Your task to perform on an android device: Open settings Image 0: 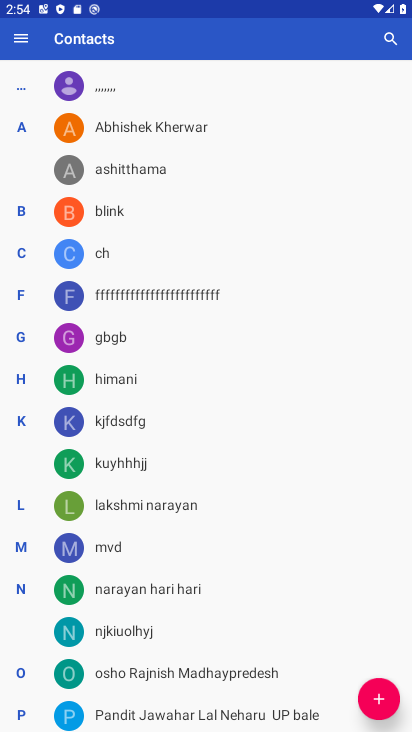
Step 0: press home button
Your task to perform on an android device: Open settings Image 1: 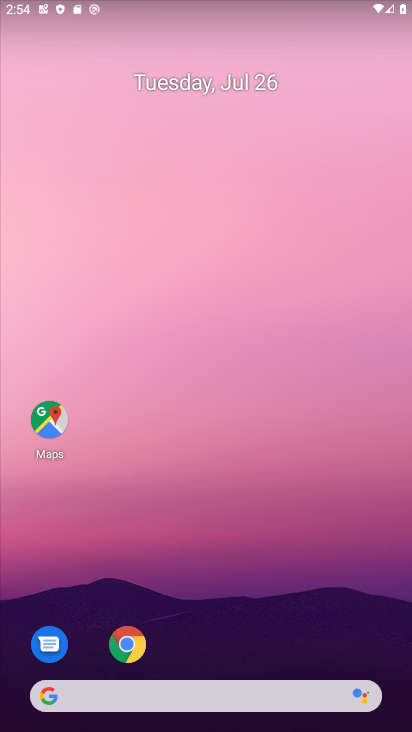
Step 1: drag from (275, 600) to (344, 64)
Your task to perform on an android device: Open settings Image 2: 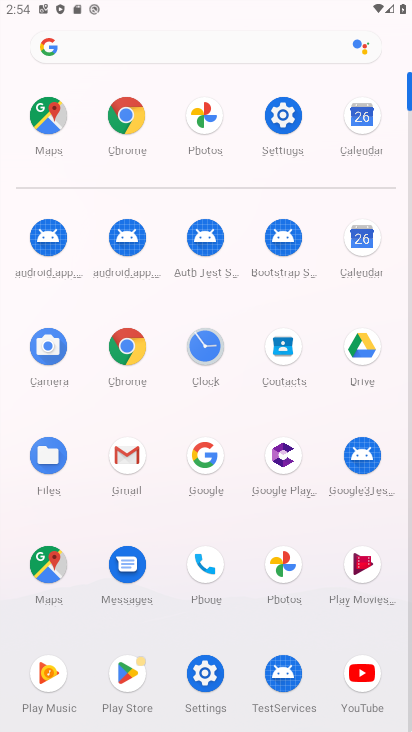
Step 2: click (280, 116)
Your task to perform on an android device: Open settings Image 3: 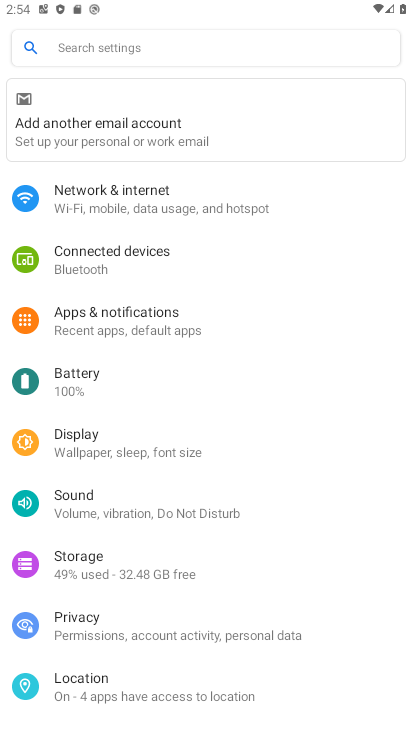
Step 3: press home button
Your task to perform on an android device: Open settings Image 4: 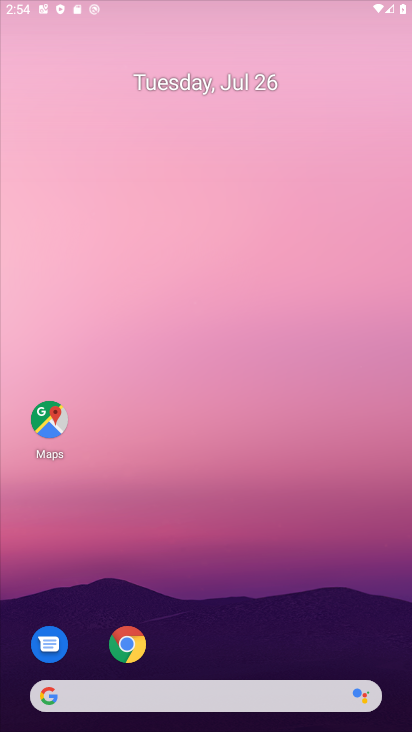
Step 4: drag from (222, 526) to (225, 48)
Your task to perform on an android device: Open settings Image 5: 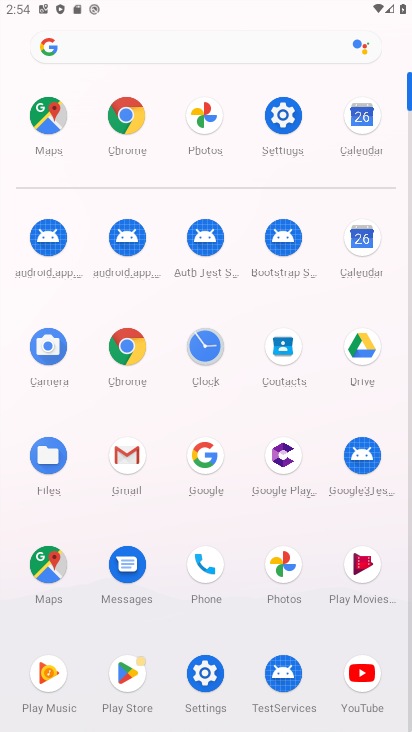
Step 5: click (280, 127)
Your task to perform on an android device: Open settings Image 6: 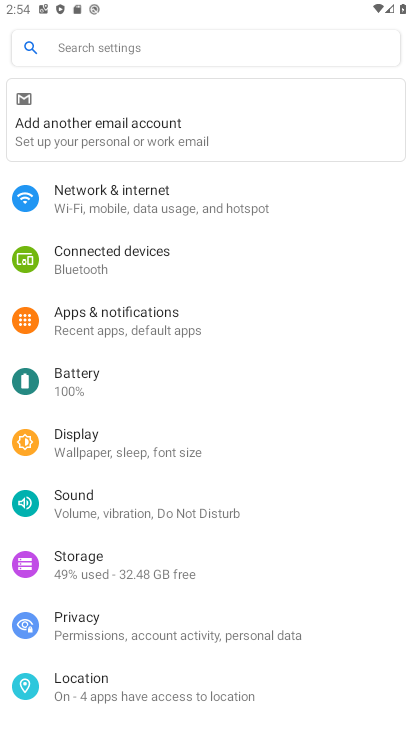
Step 6: task complete